Your task to perform on an android device: change the upload size in google photos Image 0: 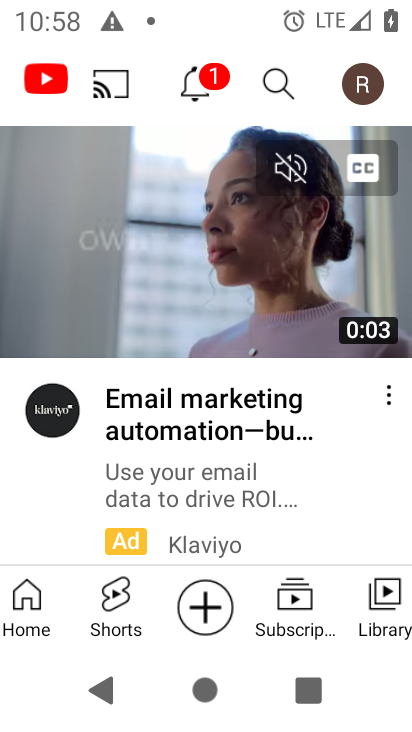
Step 0: press home button
Your task to perform on an android device: change the upload size in google photos Image 1: 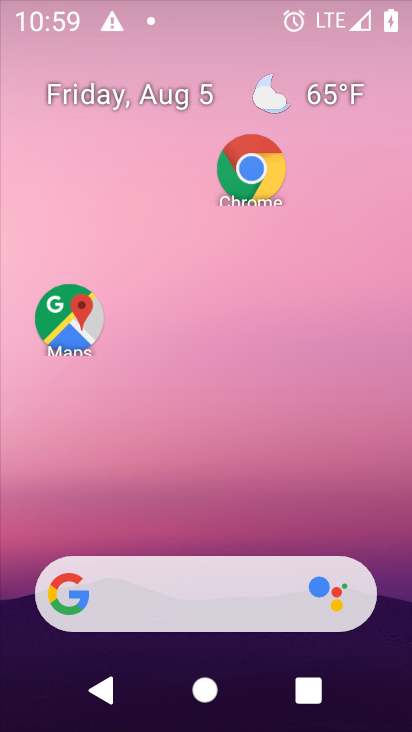
Step 1: drag from (201, 476) to (193, 153)
Your task to perform on an android device: change the upload size in google photos Image 2: 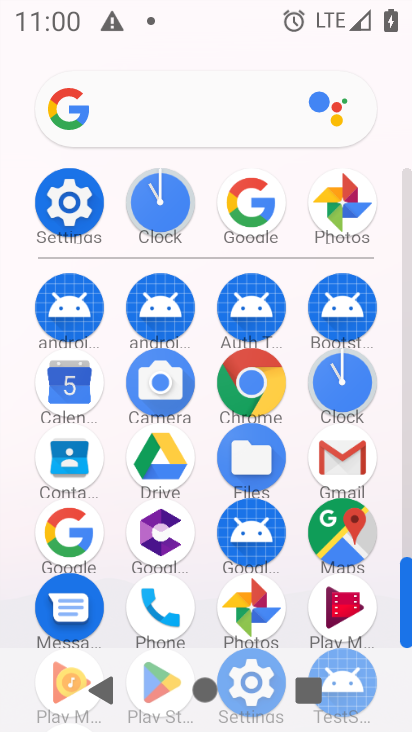
Step 2: click (358, 201)
Your task to perform on an android device: change the upload size in google photos Image 3: 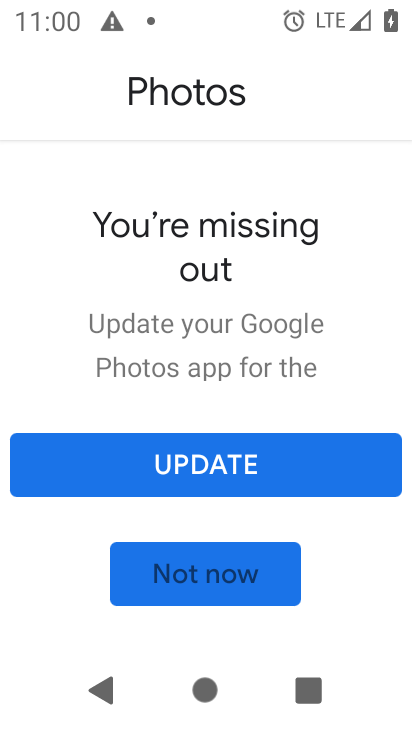
Step 3: click (216, 563)
Your task to perform on an android device: change the upload size in google photos Image 4: 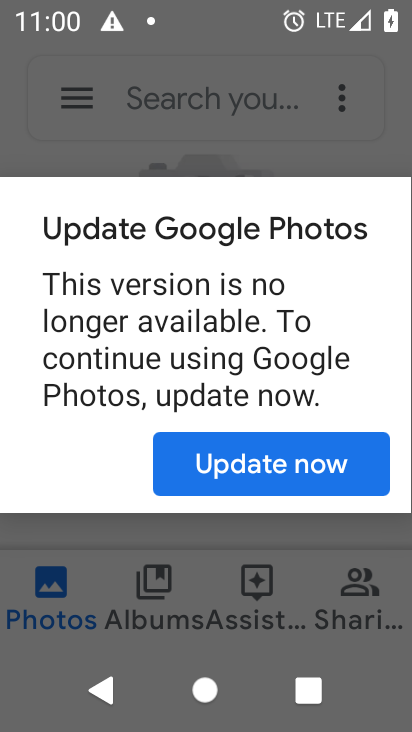
Step 4: click (266, 467)
Your task to perform on an android device: change the upload size in google photos Image 5: 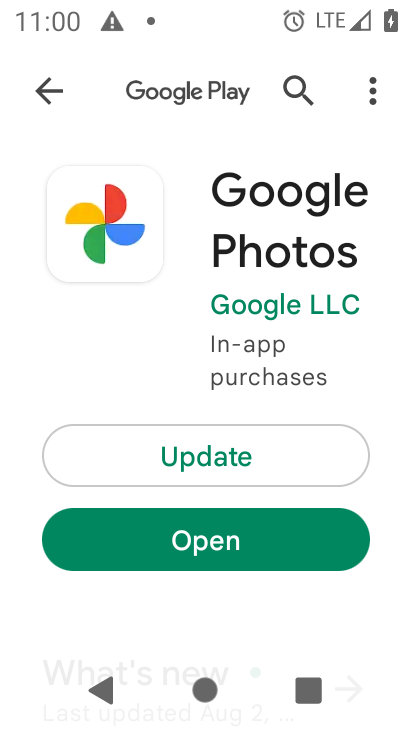
Step 5: click (201, 564)
Your task to perform on an android device: change the upload size in google photos Image 6: 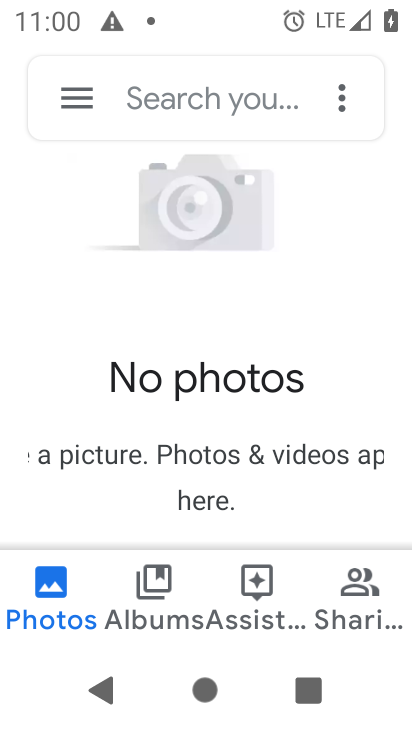
Step 6: click (83, 90)
Your task to perform on an android device: change the upload size in google photos Image 7: 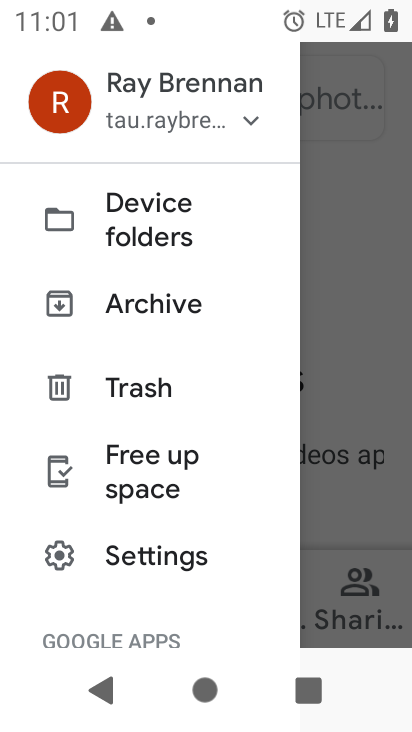
Step 7: drag from (165, 541) to (159, 198)
Your task to perform on an android device: change the upload size in google photos Image 8: 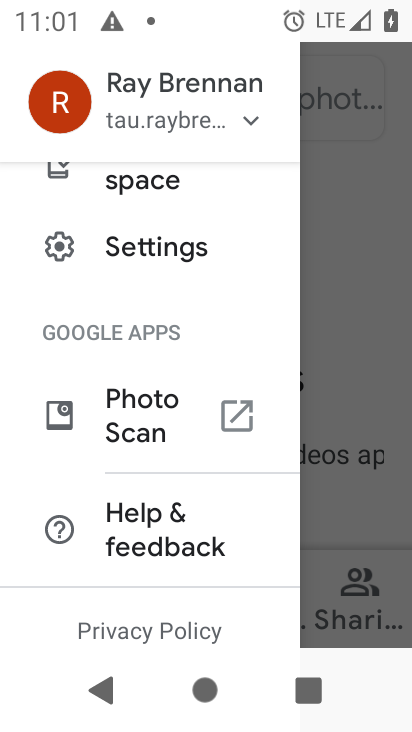
Step 8: click (146, 239)
Your task to perform on an android device: change the upload size in google photos Image 9: 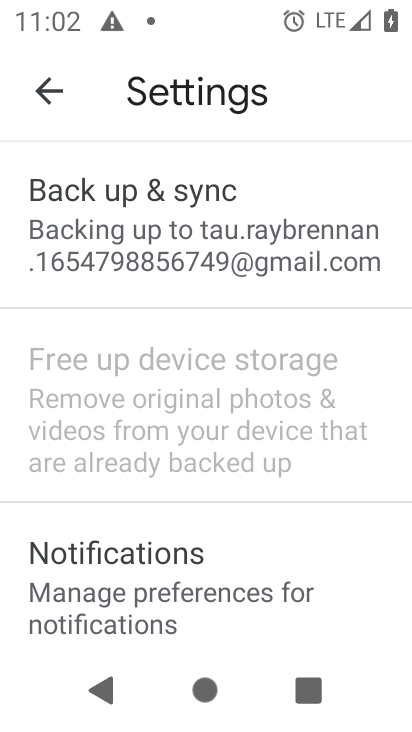
Step 9: drag from (207, 590) to (215, 269)
Your task to perform on an android device: change the upload size in google photos Image 10: 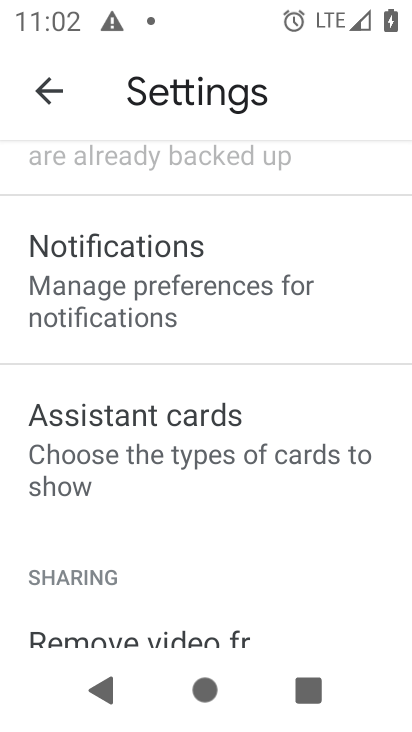
Step 10: drag from (225, 551) to (218, 227)
Your task to perform on an android device: change the upload size in google photos Image 11: 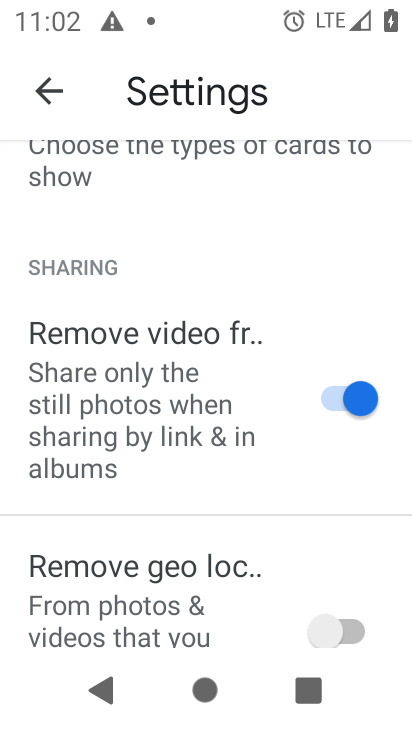
Step 11: drag from (183, 522) to (163, 144)
Your task to perform on an android device: change the upload size in google photos Image 12: 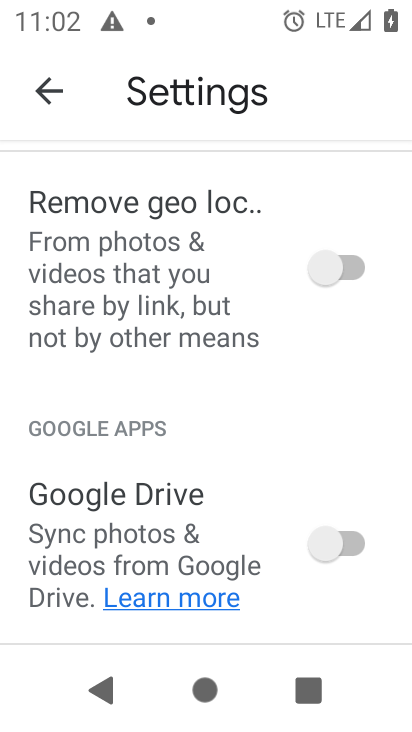
Step 12: drag from (166, 222) to (166, 610)
Your task to perform on an android device: change the upload size in google photos Image 13: 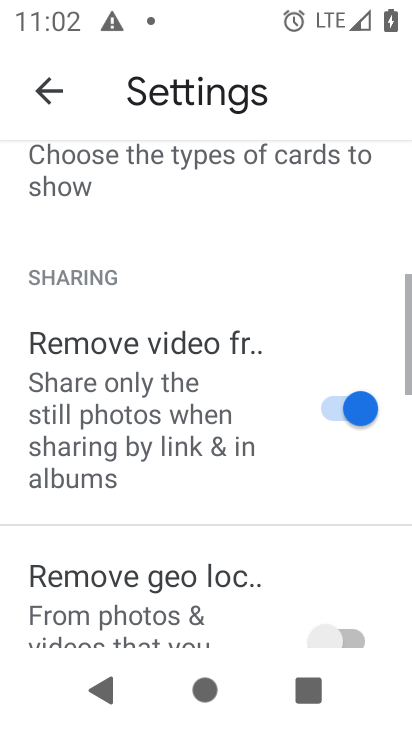
Step 13: drag from (130, 403) to (132, 591)
Your task to perform on an android device: change the upload size in google photos Image 14: 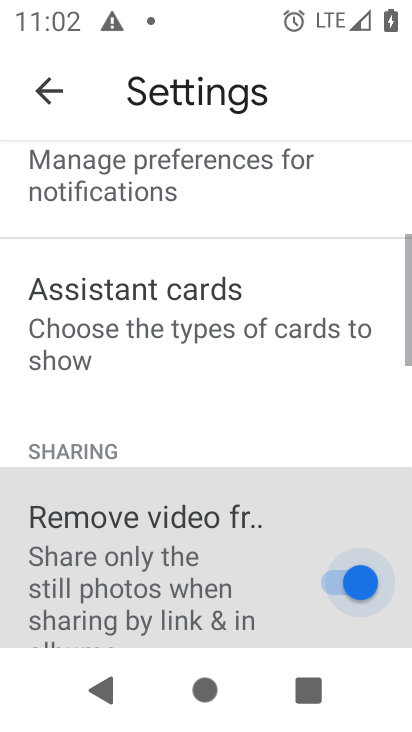
Step 14: drag from (186, 397) to (192, 613)
Your task to perform on an android device: change the upload size in google photos Image 15: 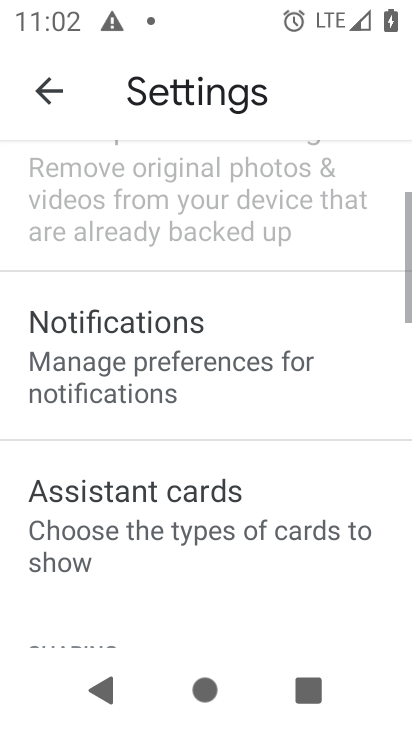
Step 15: drag from (192, 257) to (169, 656)
Your task to perform on an android device: change the upload size in google photos Image 16: 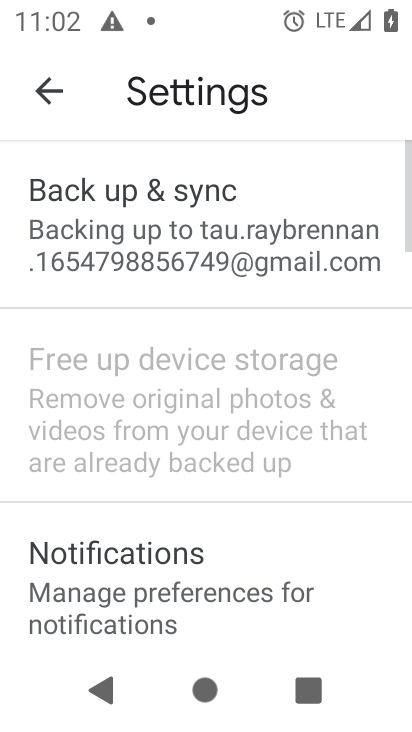
Step 16: drag from (186, 262) to (186, 611)
Your task to perform on an android device: change the upload size in google photos Image 17: 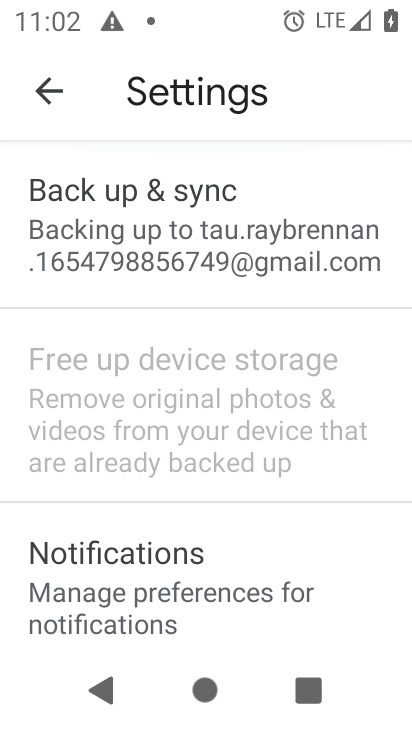
Step 17: click (186, 259)
Your task to perform on an android device: change the upload size in google photos Image 18: 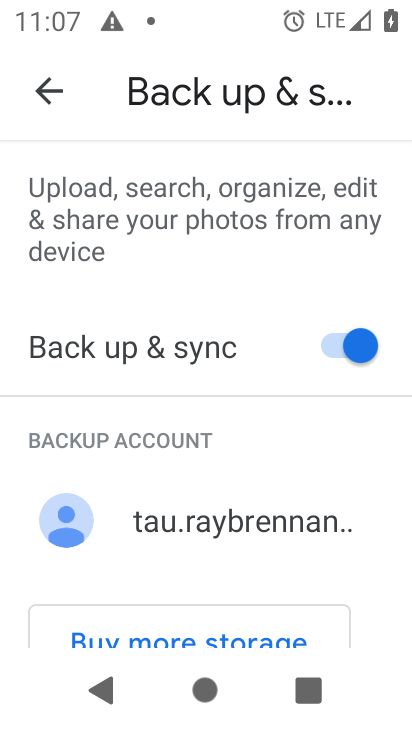
Step 18: drag from (192, 485) to (188, 145)
Your task to perform on an android device: change the upload size in google photos Image 19: 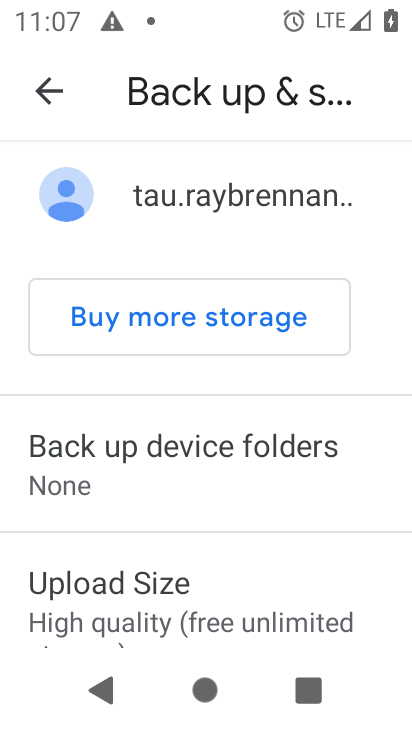
Step 19: click (186, 609)
Your task to perform on an android device: change the upload size in google photos Image 20: 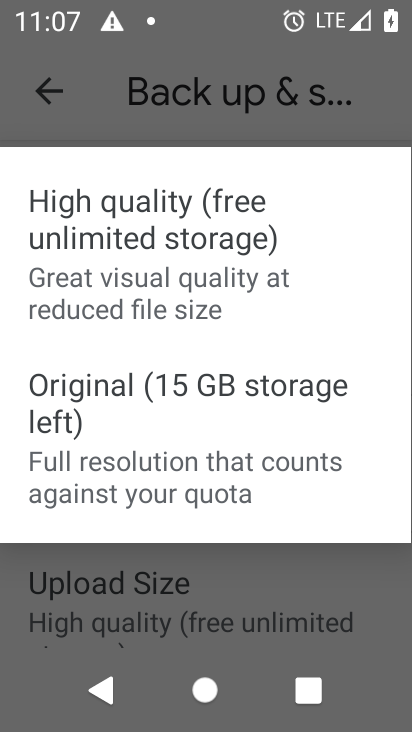
Step 20: click (127, 407)
Your task to perform on an android device: change the upload size in google photos Image 21: 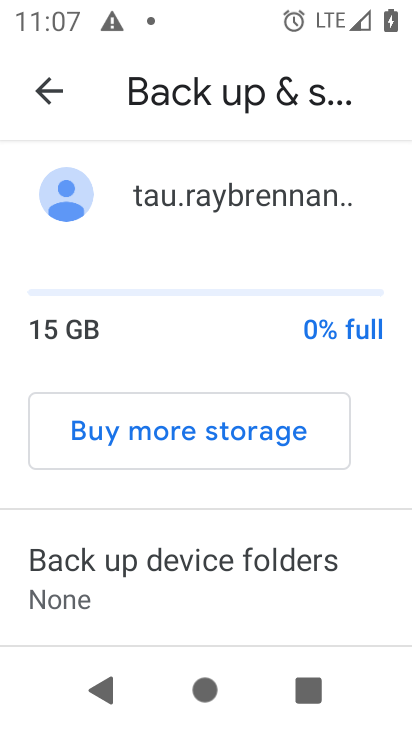
Step 21: task complete